Your task to perform on an android device: Show me recent news Image 0: 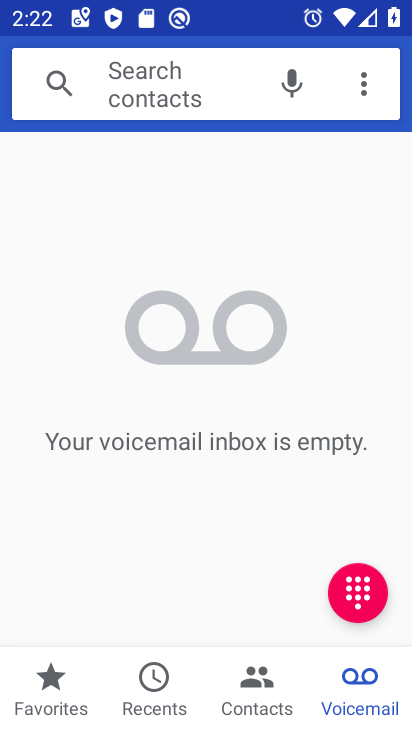
Step 0: press home button
Your task to perform on an android device: Show me recent news Image 1: 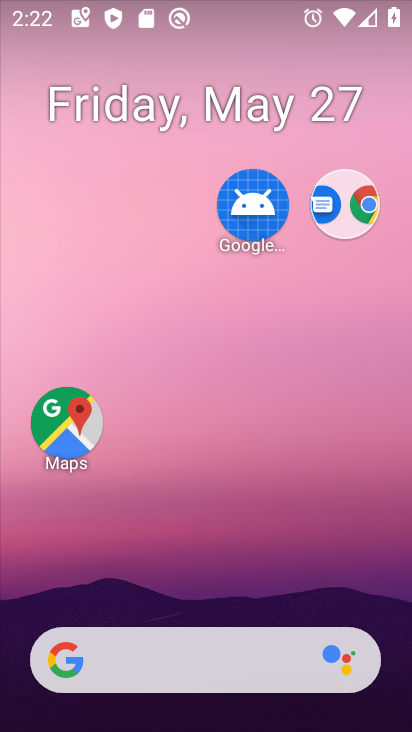
Step 1: drag from (276, 599) to (314, 435)
Your task to perform on an android device: Show me recent news Image 2: 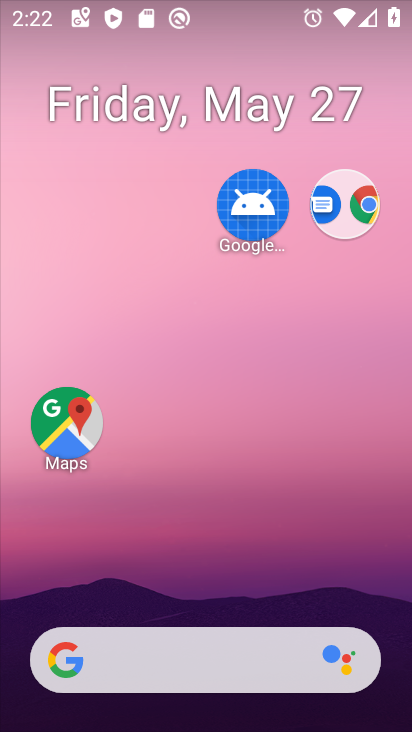
Step 2: drag from (265, 660) to (391, 74)
Your task to perform on an android device: Show me recent news Image 3: 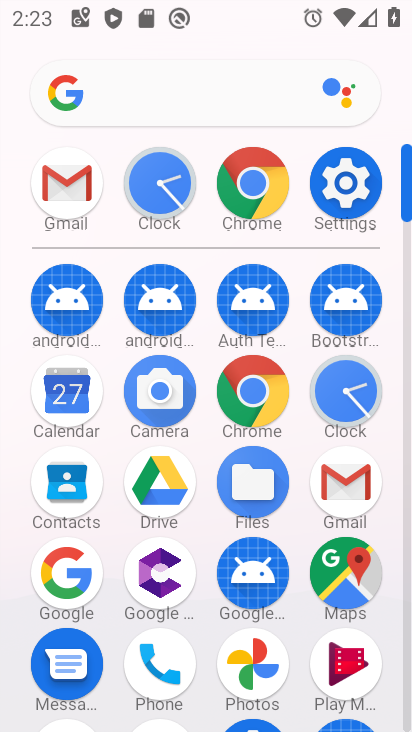
Step 3: click (71, 570)
Your task to perform on an android device: Show me recent news Image 4: 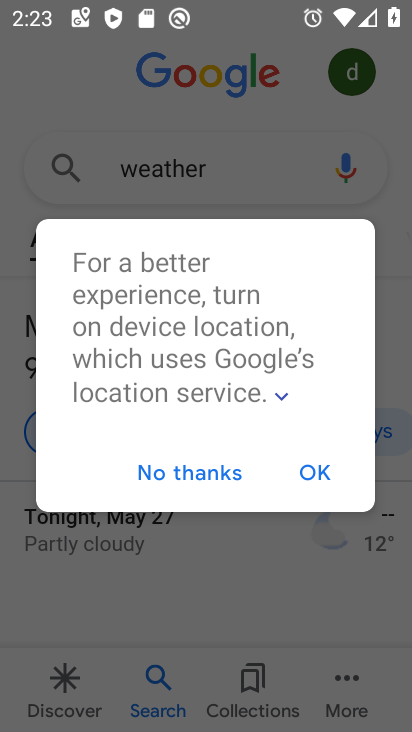
Step 4: click (304, 492)
Your task to perform on an android device: Show me recent news Image 5: 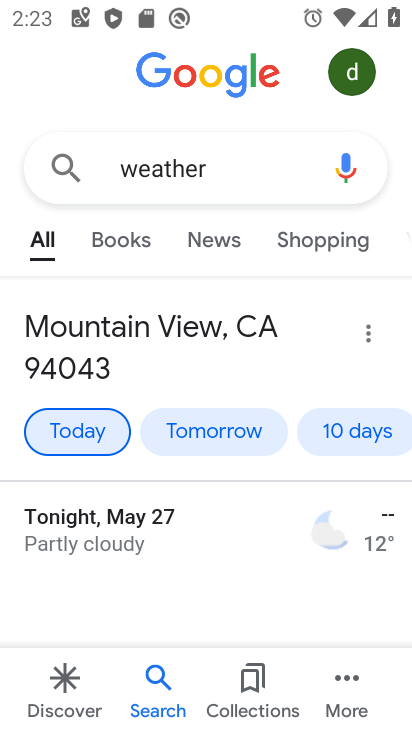
Step 5: click (66, 676)
Your task to perform on an android device: Show me recent news Image 6: 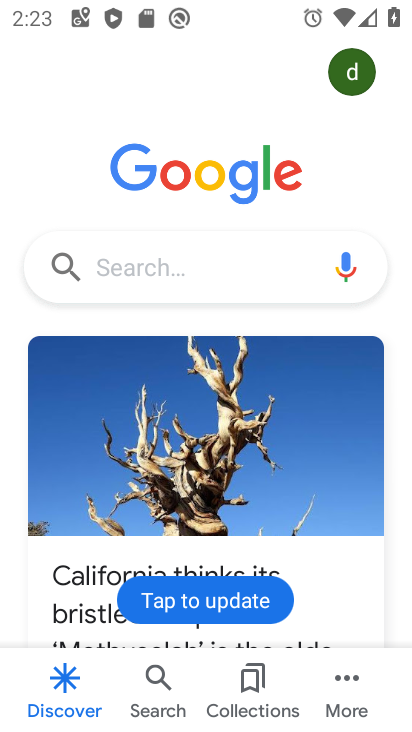
Step 6: click (173, 283)
Your task to perform on an android device: Show me recent news Image 7: 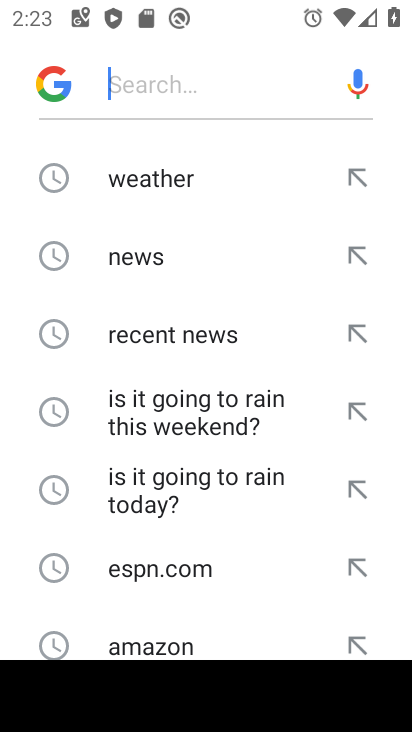
Step 7: click (248, 325)
Your task to perform on an android device: Show me recent news Image 8: 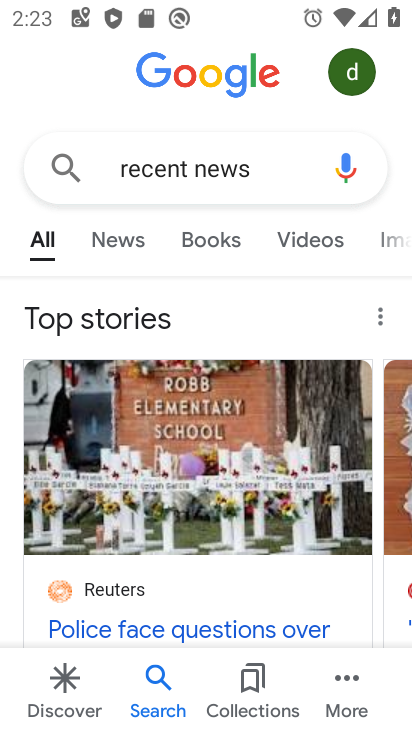
Step 8: click (122, 245)
Your task to perform on an android device: Show me recent news Image 9: 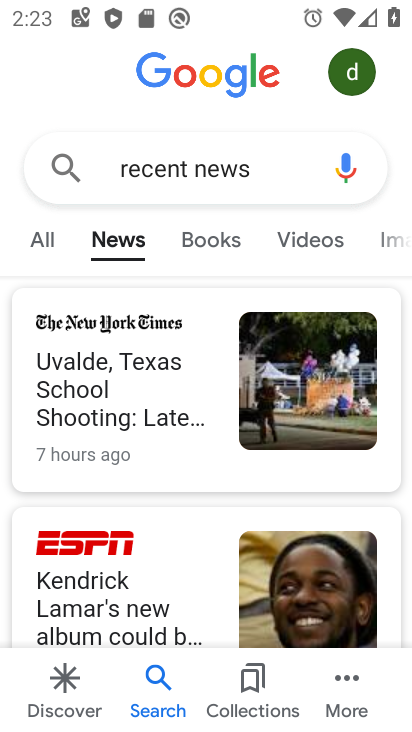
Step 9: task complete